Your task to perform on an android device: toggle wifi Image 0: 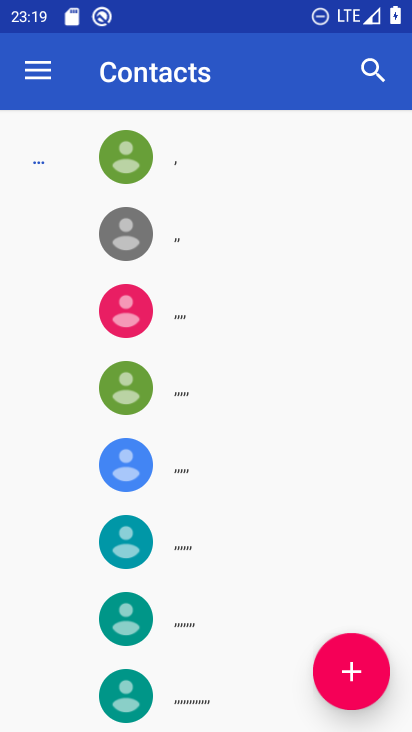
Step 0: press home button
Your task to perform on an android device: toggle wifi Image 1: 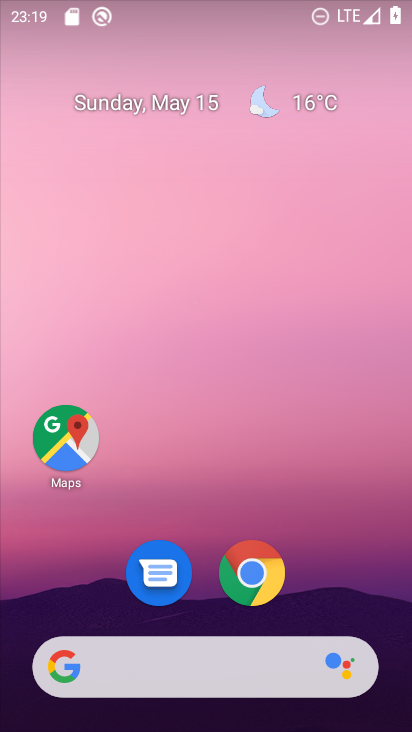
Step 1: drag from (294, 2) to (263, 727)
Your task to perform on an android device: toggle wifi Image 2: 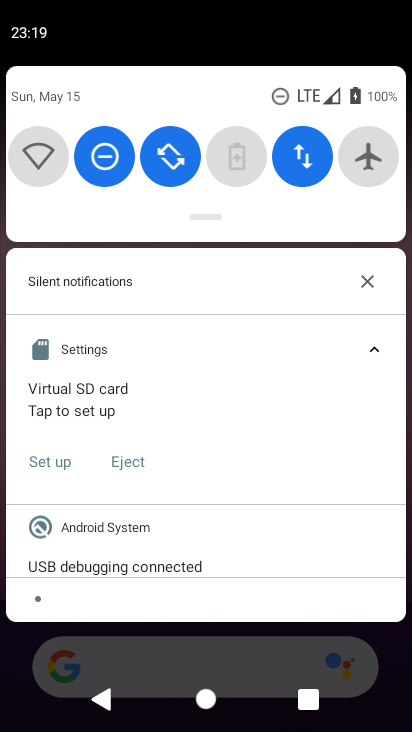
Step 2: click (23, 142)
Your task to perform on an android device: toggle wifi Image 3: 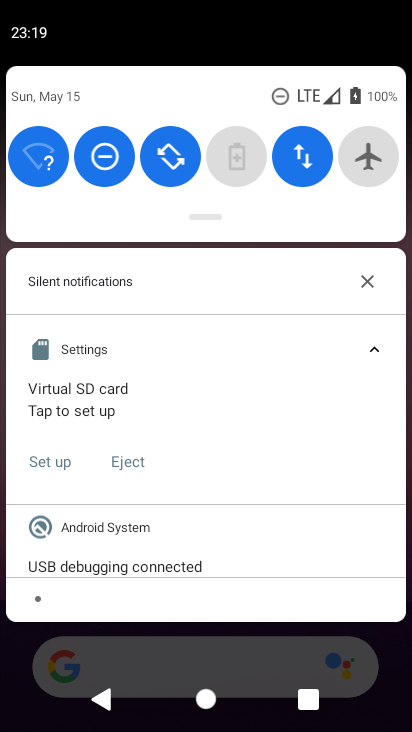
Step 3: task complete